Your task to perform on an android device: change the clock style Image 0: 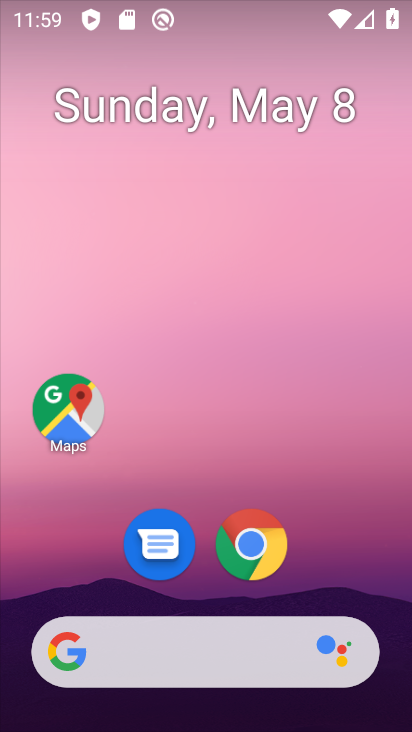
Step 0: drag from (366, 528) to (406, 172)
Your task to perform on an android device: change the clock style Image 1: 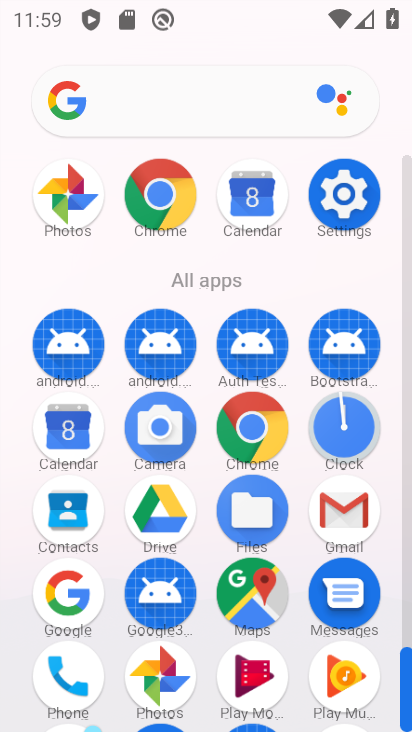
Step 1: click (364, 439)
Your task to perform on an android device: change the clock style Image 2: 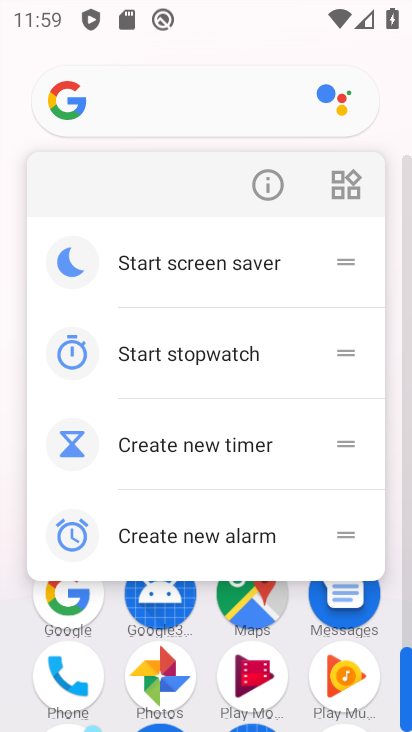
Step 2: press back button
Your task to perform on an android device: change the clock style Image 3: 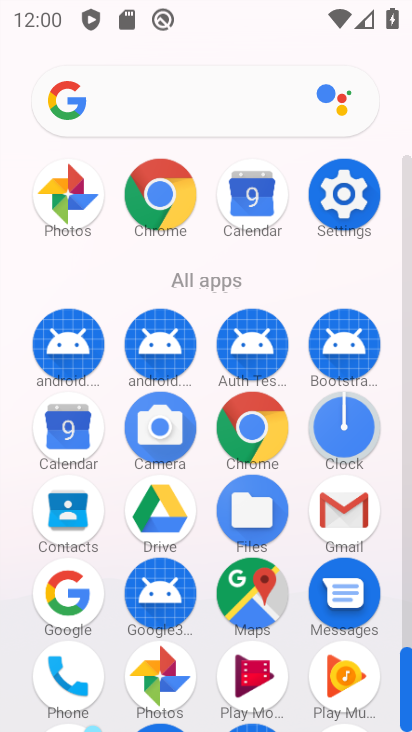
Step 3: click (354, 443)
Your task to perform on an android device: change the clock style Image 4: 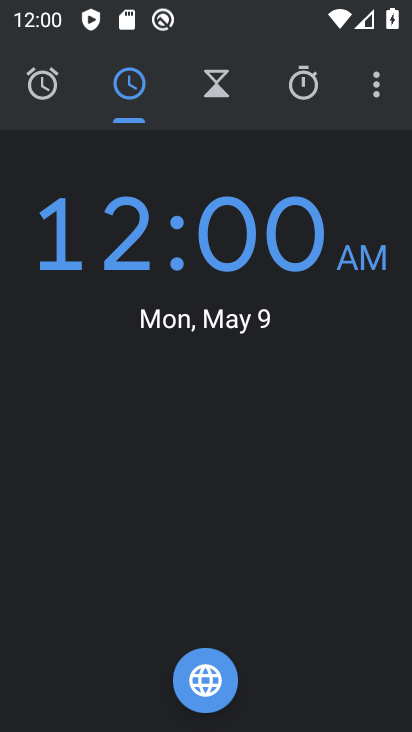
Step 4: click (382, 94)
Your task to perform on an android device: change the clock style Image 5: 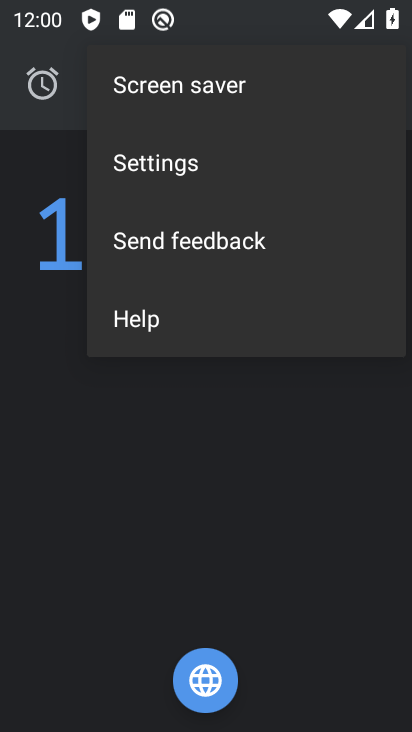
Step 5: click (181, 154)
Your task to perform on an android device: change the clock style Image 6: 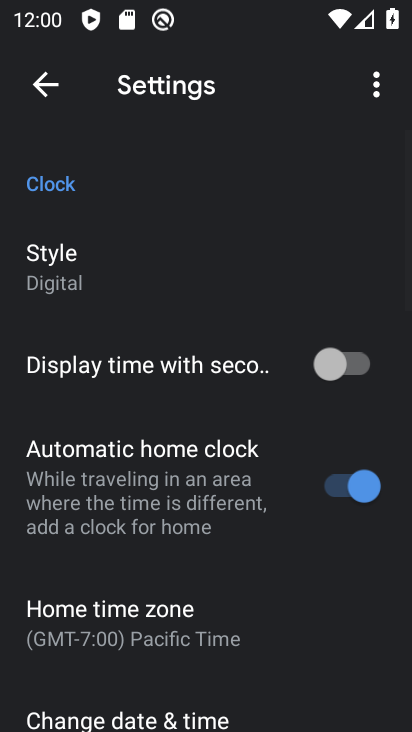
Step 6: click (47, 276)
Your task to perform on an android device: change the clock style Image 7: 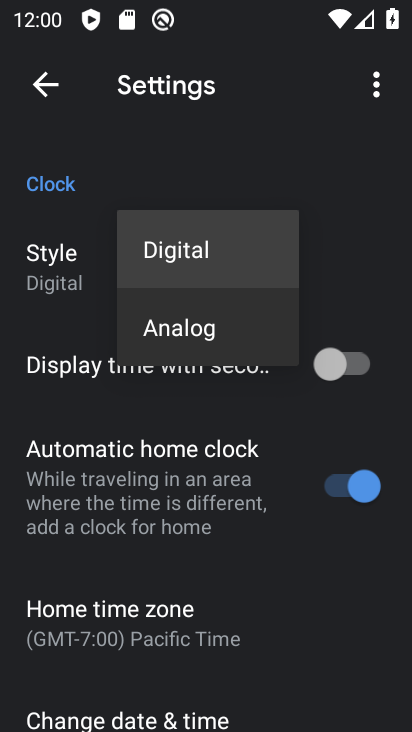
Step 7: click (162, 340)
Your task to perform on an android device: change the clock style Image 8: 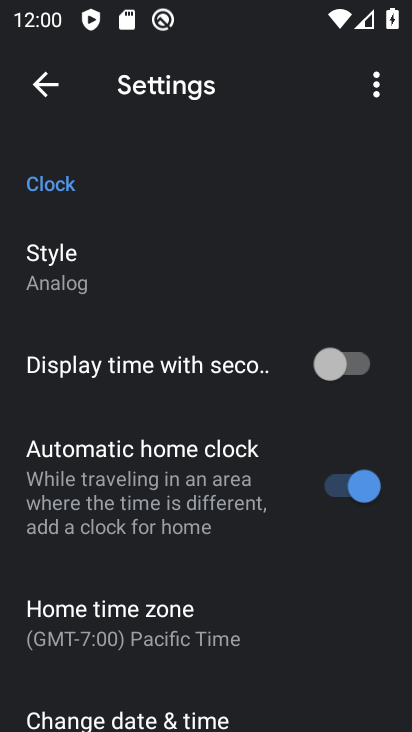
Step 8: task complete